Your task to perform on an android device: open app "Fetch Rewards" Image 0: 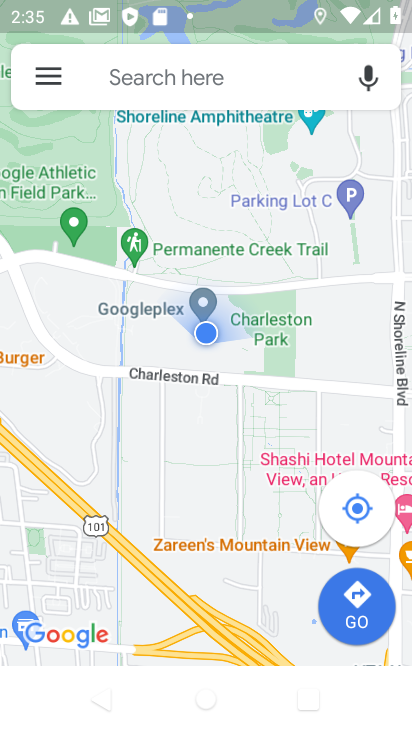
Step 0: press home button
Your task to perform on an android device: open app "Fetch Rewards" Image 1: 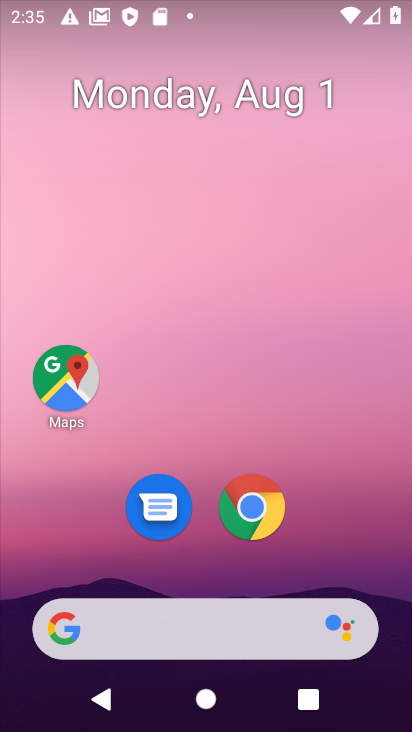
Step 1: drag from (317, 554) to (320, 79)
Your task to perform on an android device: open app "Fetch Rewards" Image 2: 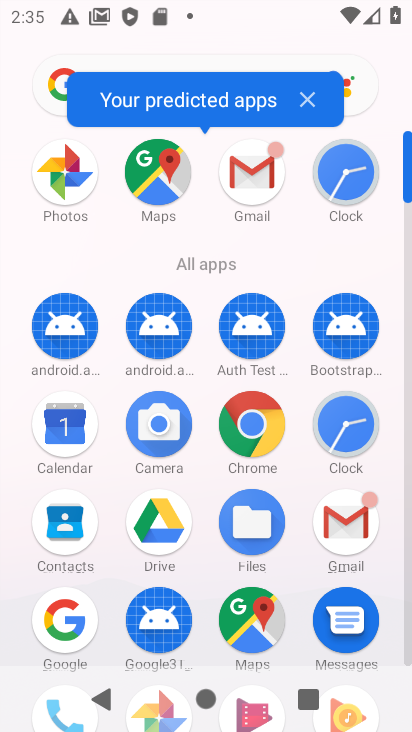
Step 2: drag from (301, 583) to (334, 179)
Your task to perform on an android device: open app "Fetch Rewards" Image 3: 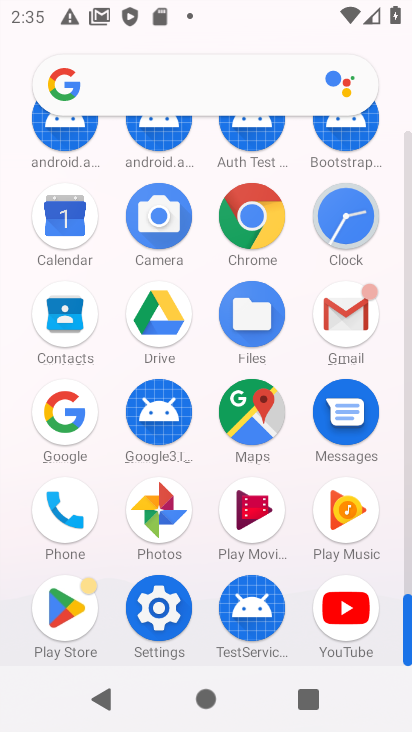
Step 3: click (60, 615)
Your task to perform on an android device: open app "Fetch Rewards" Image 4: 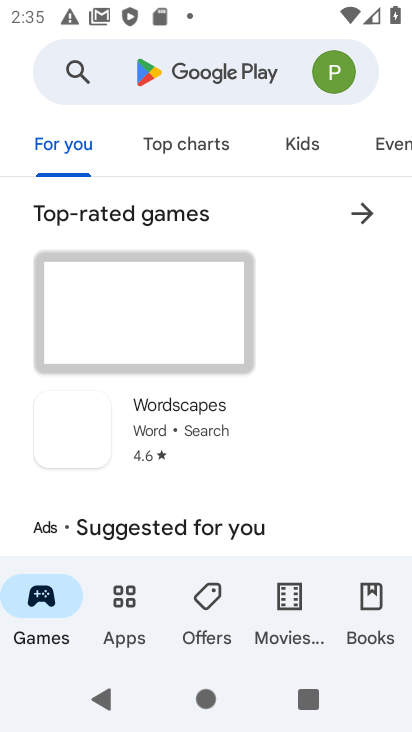
Step 4: click (249, 81)
Your task to perform on an android device: open app "Fetch Rewards" Image 5: 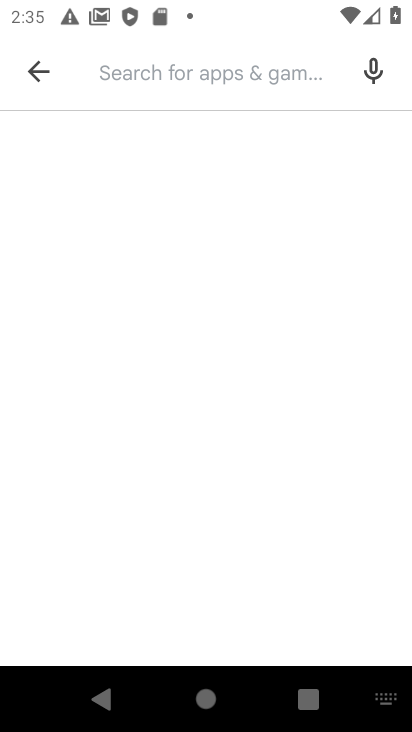
Step 5: type "Fetch Rewards"
Your task to perform on an android device: open app "Fetch Rewards" Image 6: 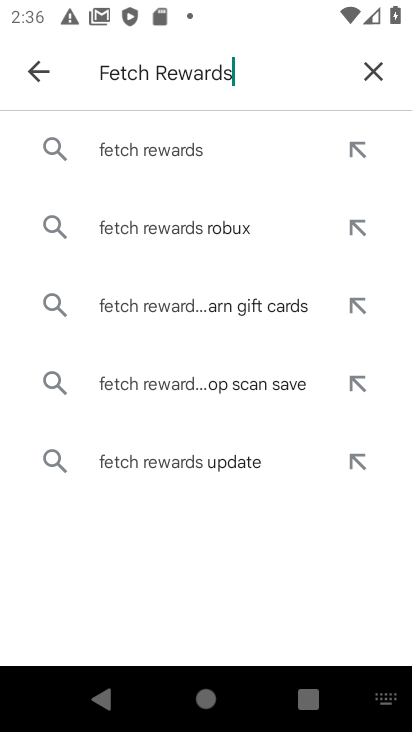
Step 6: press enter
Your task to perform on an android device: open app "Fetch Rewards" Image 7: 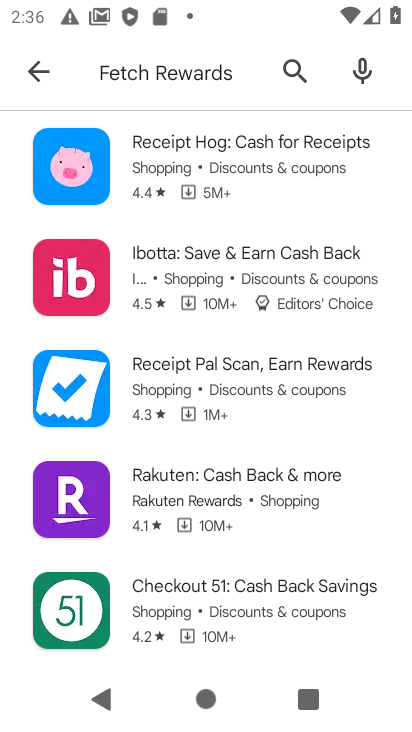
Step 7: task complete